Your task to perform on an android device: change the clock display to show seconds Image 0: 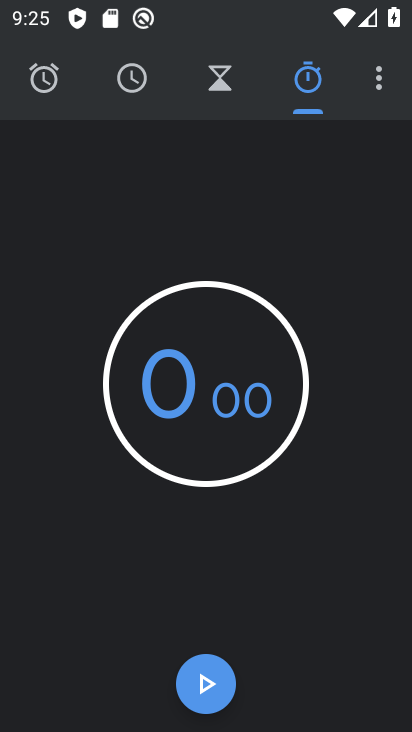
Step 0: press home button
Your task to perform on an android device: change the clock display to show seconds Image 1: 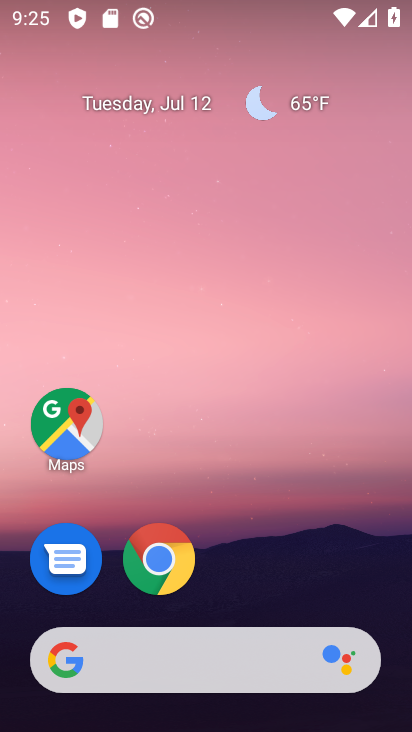
Step 1: drag from (350, 565) to (331, 130)
Your task to perform on an android device: change the clock display to show seconds Image 2: 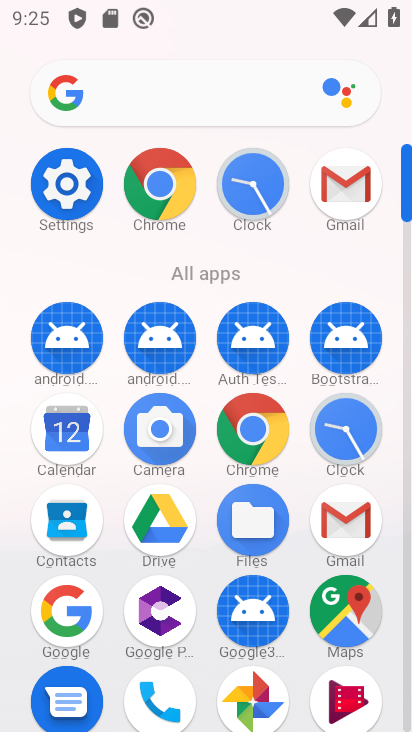
Step 2: click (362, 439)
Your task to perform on an android device: change the clock display to show seconds Image 3: 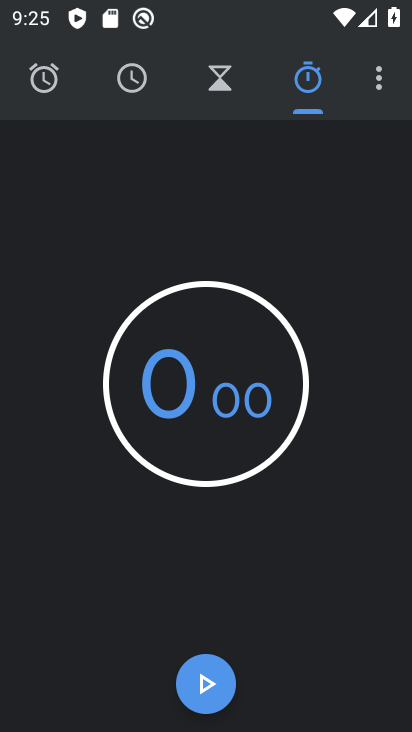
Step 3: click (378, 82)
Your task to perform on an android device: change the clock display to show seconds Image 4: 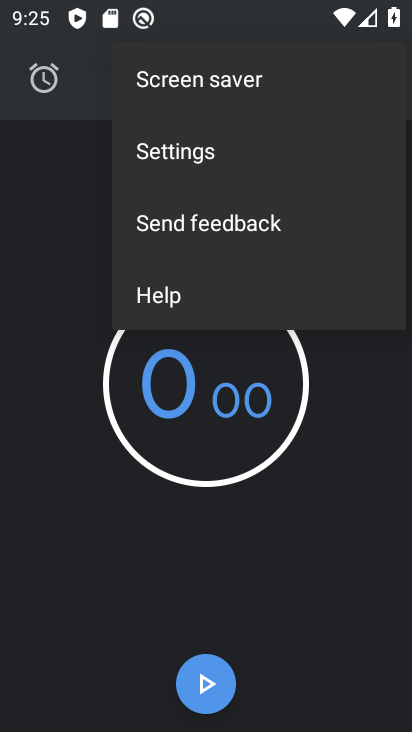
Step 4: click (220, 160)
Your task to perform on an android device: change the clock display to show seconds Image 5: 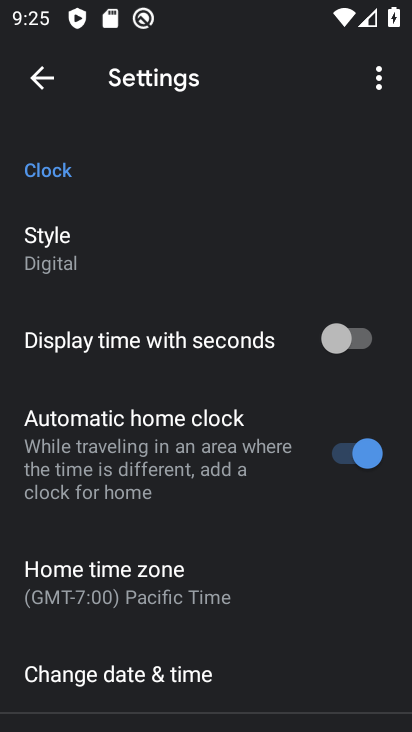
Step 5: drag from (284, 533) to (286, 327)
Your task to perform on an android device: change the clock display to show seconds Image 6: 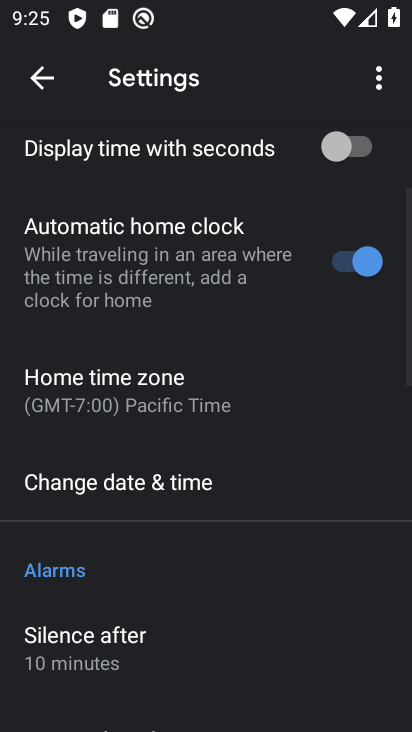
Step 6: drag from (286, 575) to (292, 359)
Your task to perform on an android device: change the clock display to show seconds Image 7: 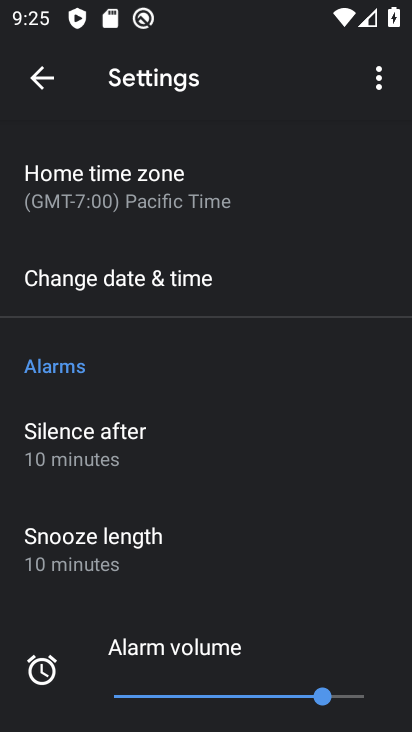
Step 7: drag from (294, 540) to (295, 270)
Your task to perform on an android device: change the clock display to show seconds Image 8: 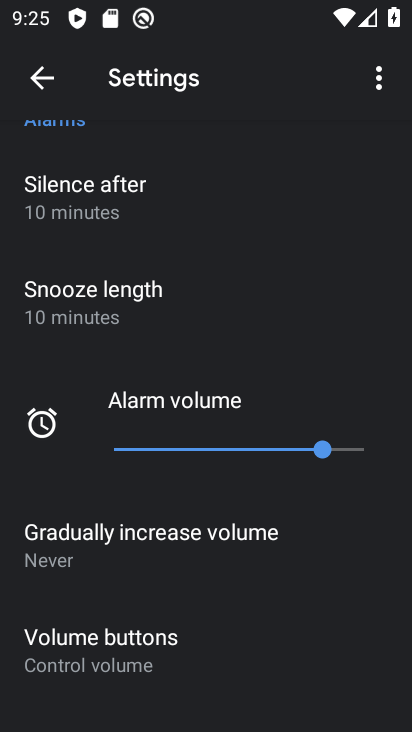
Step 8: drag from (299, 573) to (306, 310)
Your task to perform on an android device: change the clock display to show seconds Image 9: 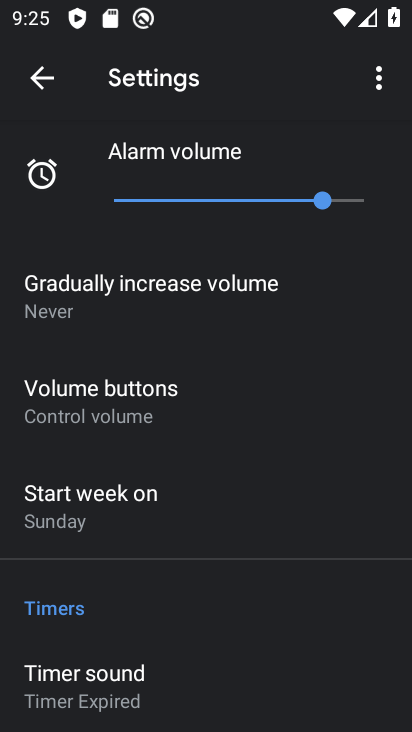
Step 9: drag from (310, 349) to (310, 473)
Your task to perform on an android device: change the clock display to show seconds Image 10: 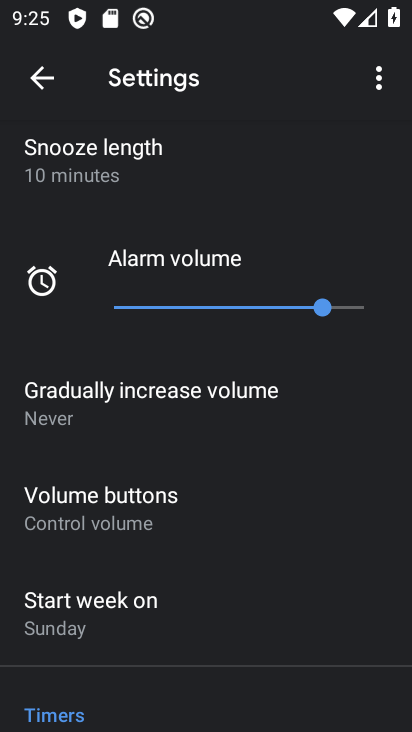
Step 10: drag from (288, 229) to (290, 410)
Your task to perform on an android device: change the clock display to show seconds Image 11: 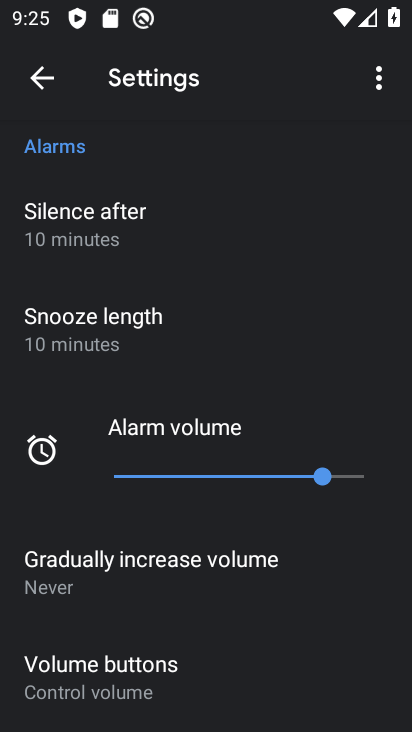
Step 11: drag from (276, 229) to (273, 398)
Your task to perform on an android device: change the clock display to show seconds Image 12: 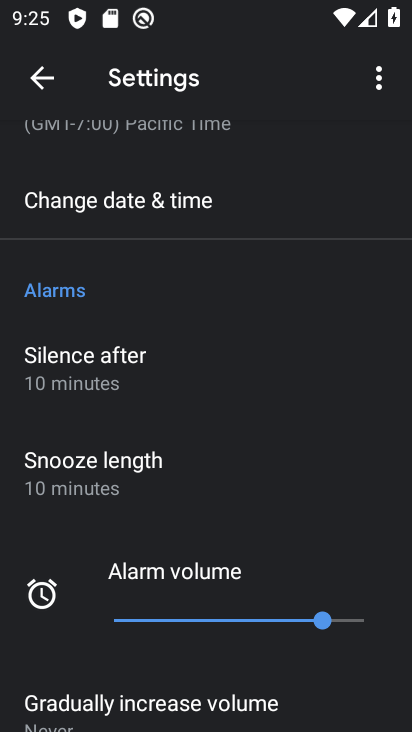
Step 12: drag from (273, 214) to (257, 432)
Your task to perform on an android device: change the clock display to show seconds Image 13: 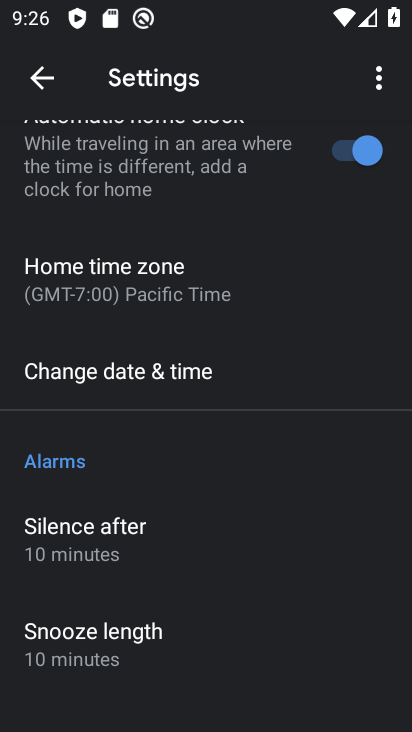
Step 13: drag from (275, 216) to (267, 442)
Your task to perform on an android device: change the clock display to show seconds Image 14: 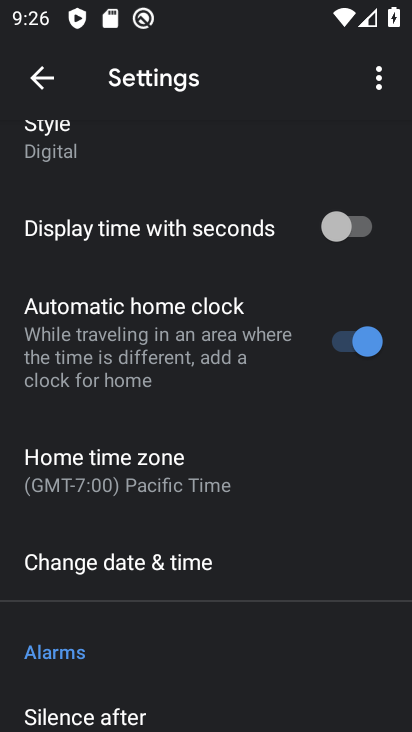
Step 14: drag from (257, 188) to (260, 387)
Your task to perform on an android device: change the clock display to show seconds Image 15: 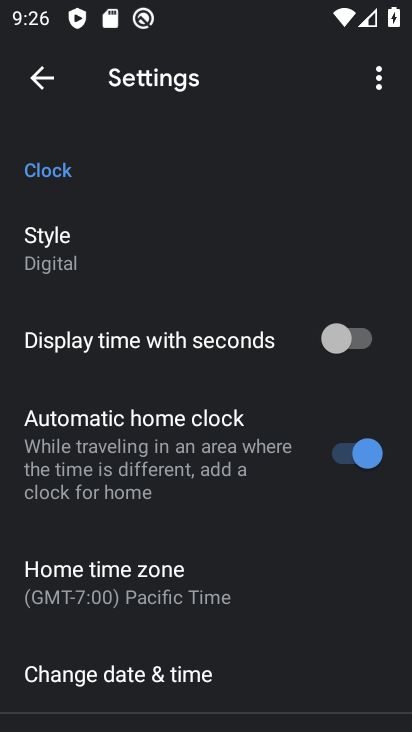
Step 15: click (337, 347)
Your task to perform on an android device: change the clock display to show seconds Image 16: 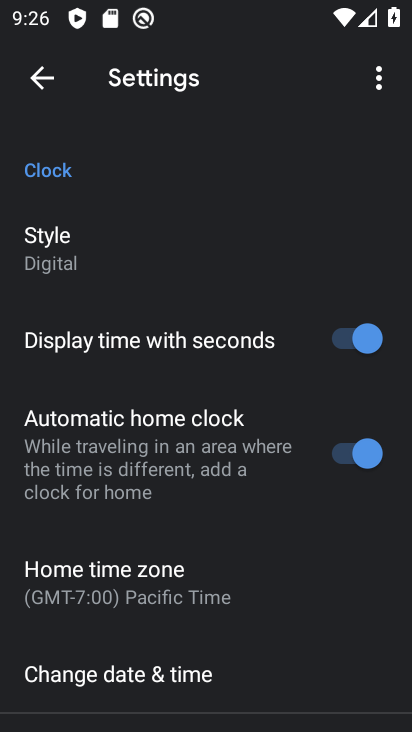
Step 16: task complete